Your task to perform on an android device: Open notification settings Image 0: 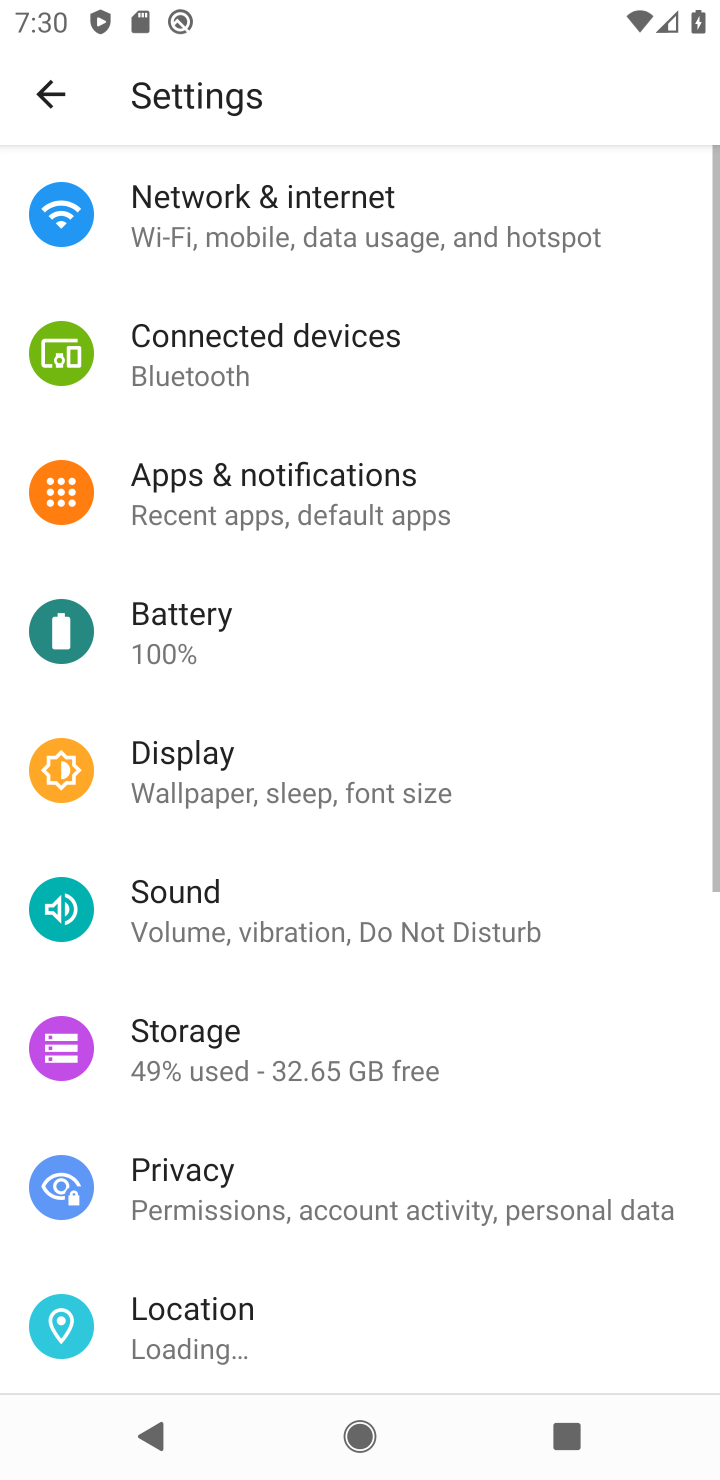
Step 0: press home button
Your task to perform on an android device: Open notification settings Image 1: 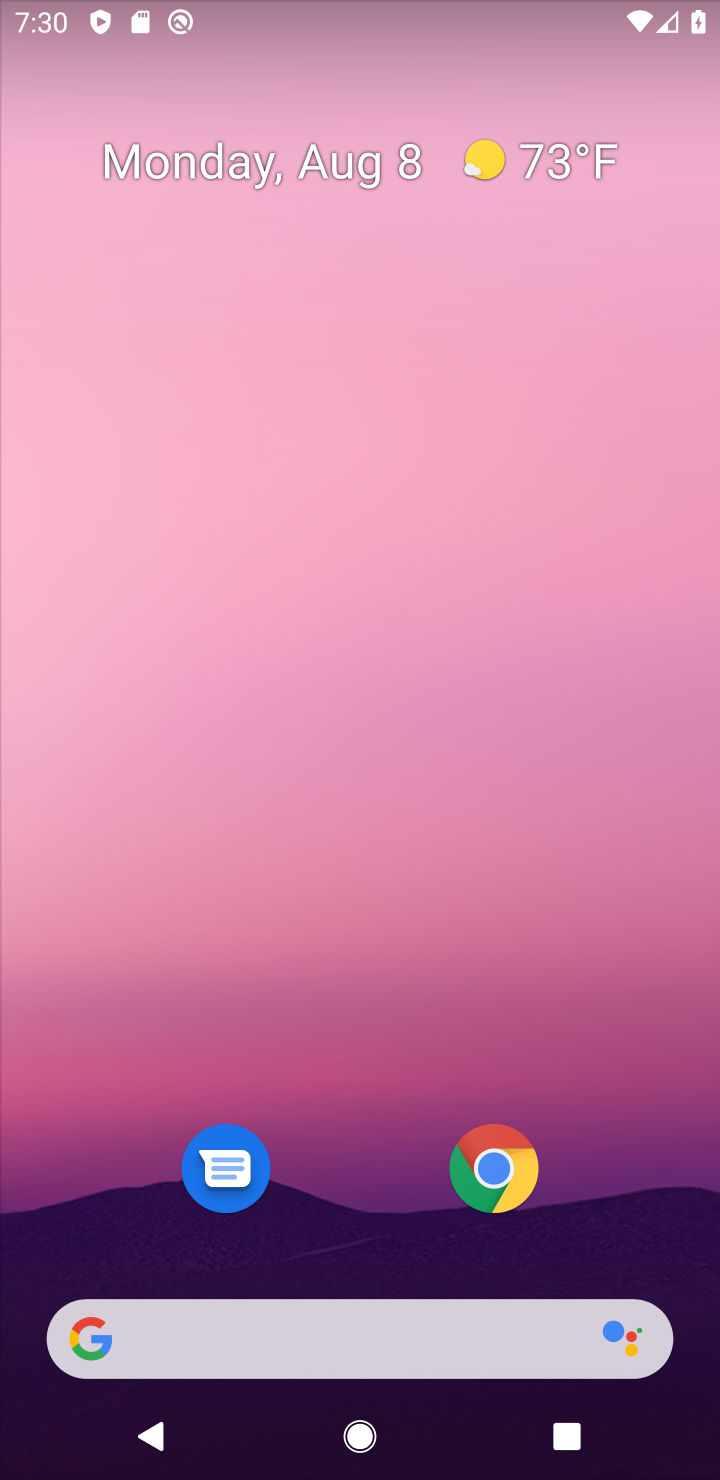
Step 1: drag from (368, 1337) to (456, 525)
Your task to perform on an android device: Open notification settings Image 2: 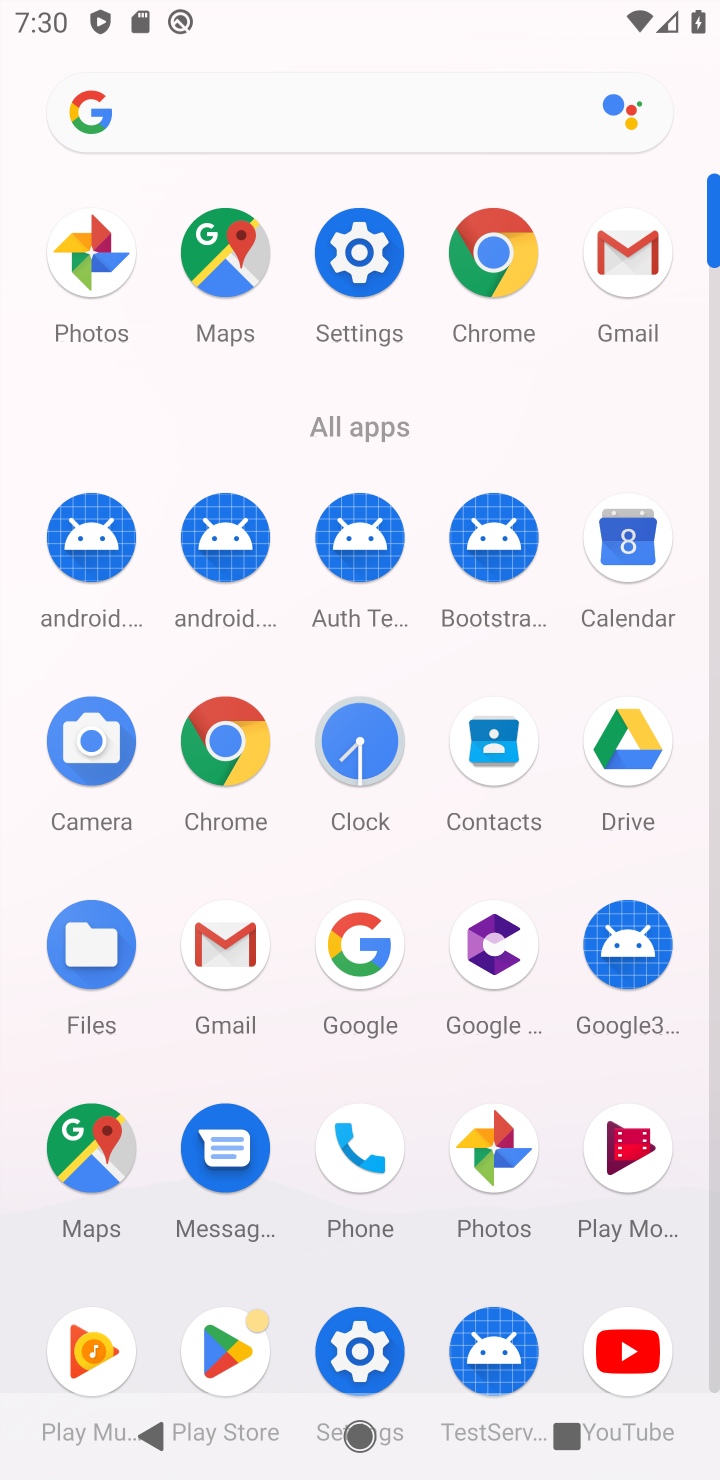
Step 2: click (366, 264)
Your task to perform on an android device: Open notification settings Image 3: 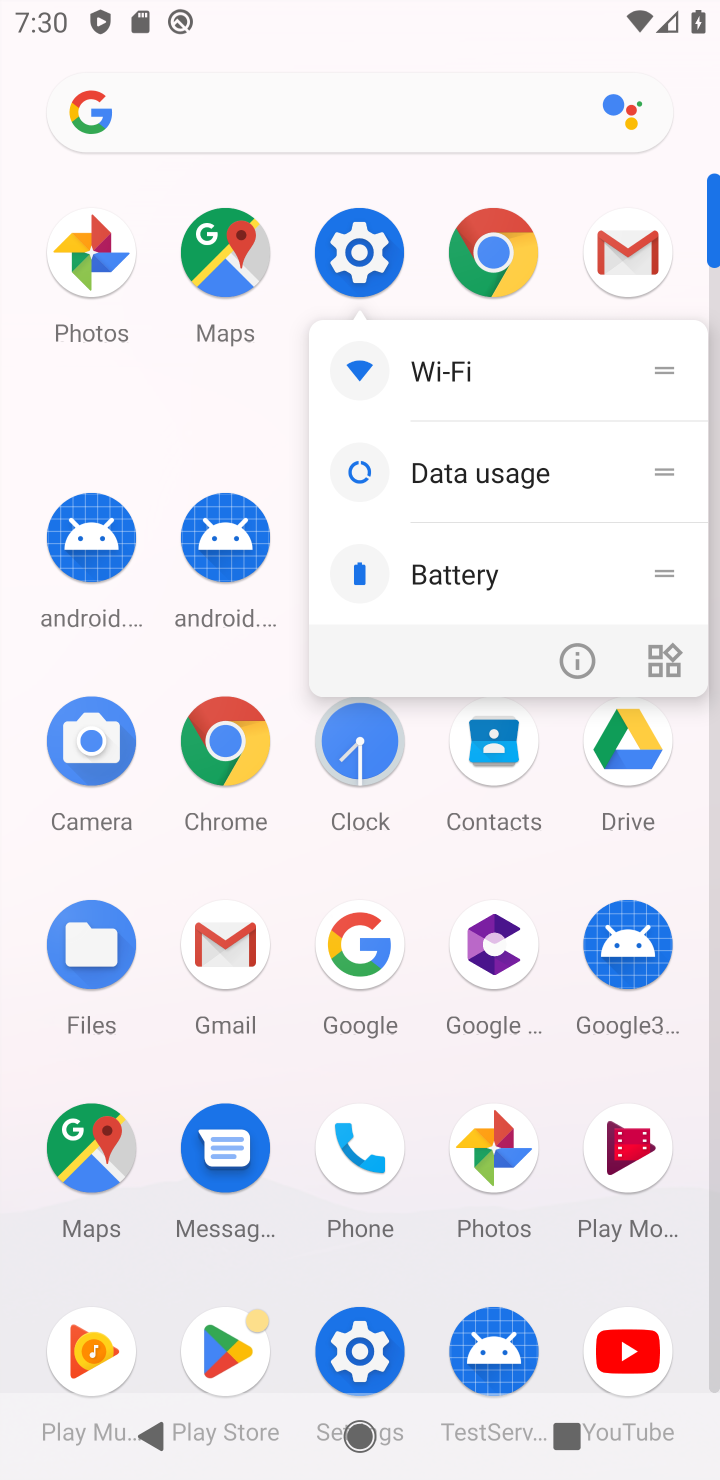
Step 3: click (353, 253)
Your task to perform on an android device: Open notification settings Image 4: 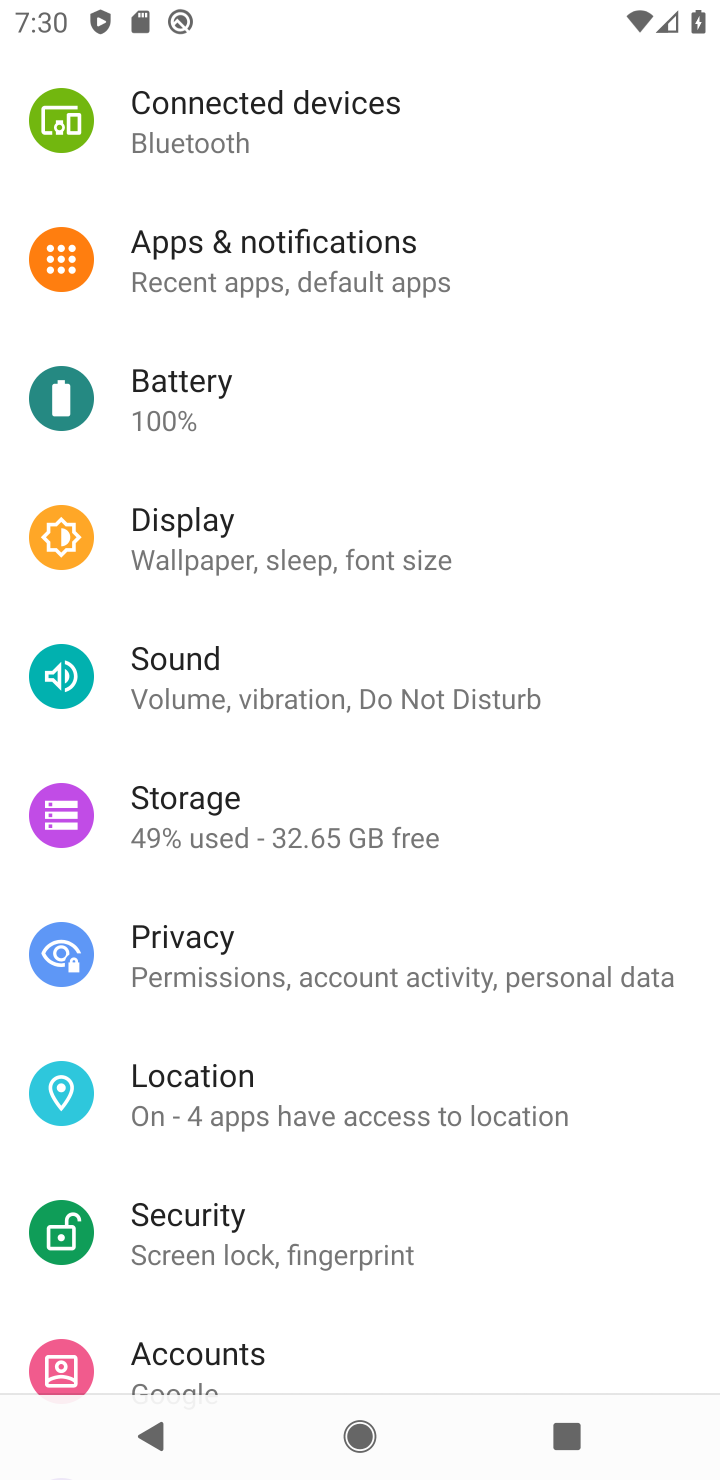
Step 4: click (309, 258)
Your task to perform on an android device: Open notification settings Image 5: 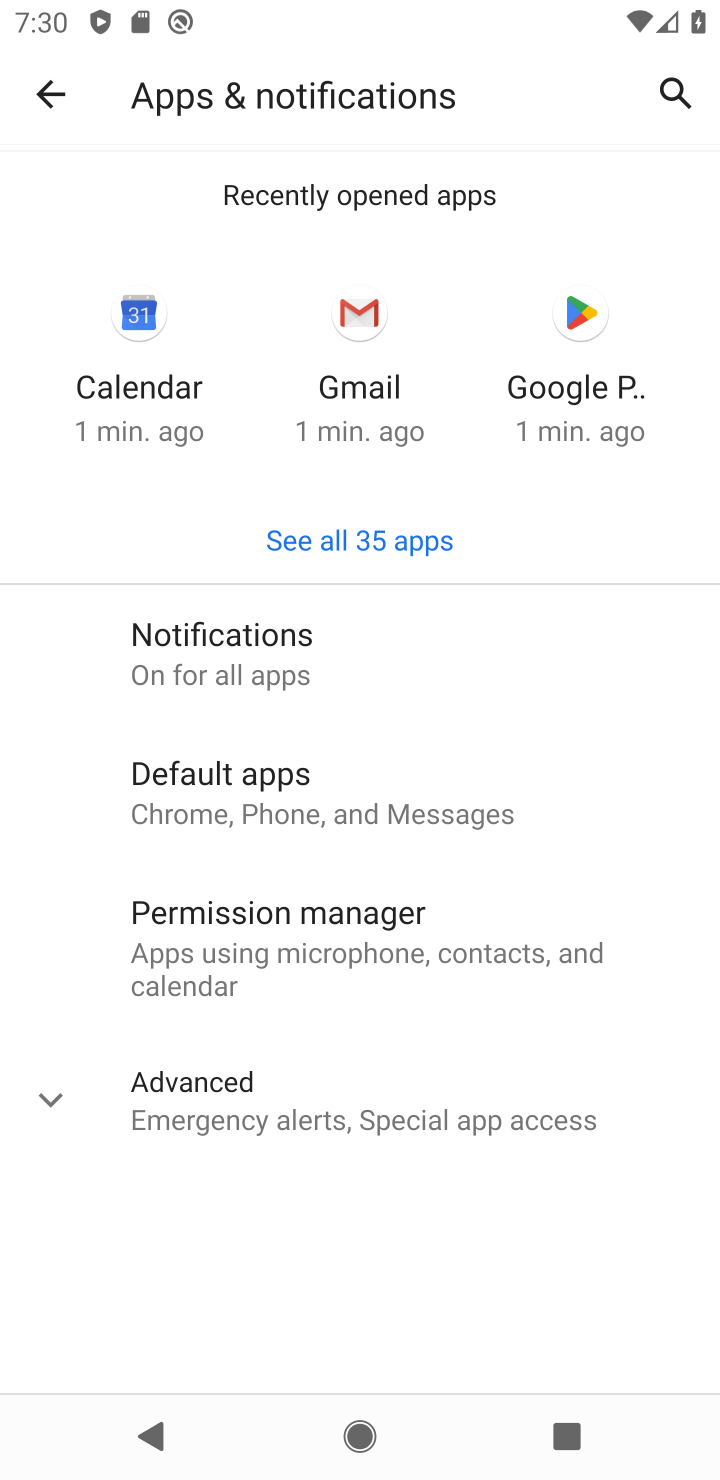
Step 5: click (200, 681)
Your task to perform on an android device: Open notification settings Image 6: 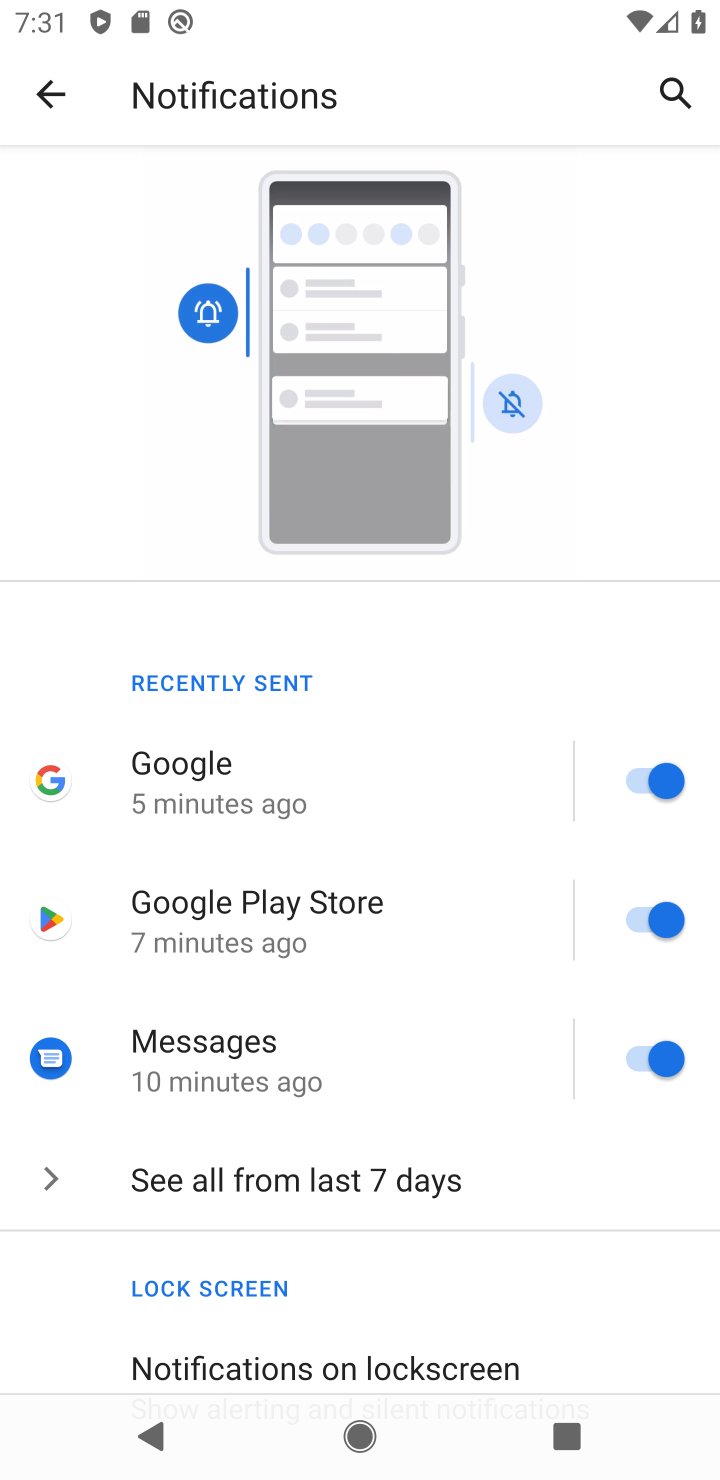
Step 6: task complete